Your task to perform on an android device: turn off wifi Image 0: 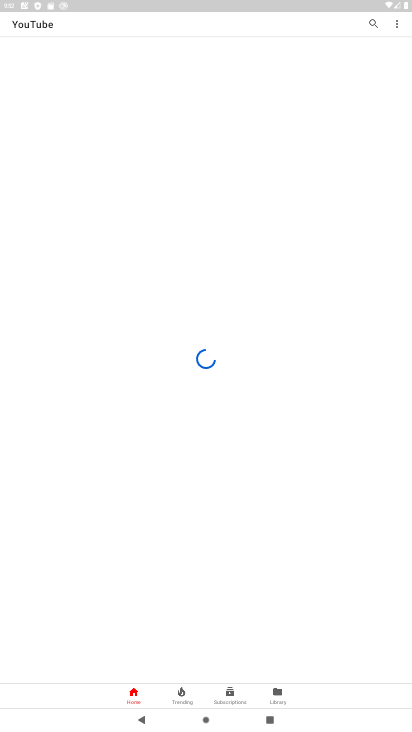
Step 0: press home button
Your task to perform on an android device: turn off wifi Image 1: 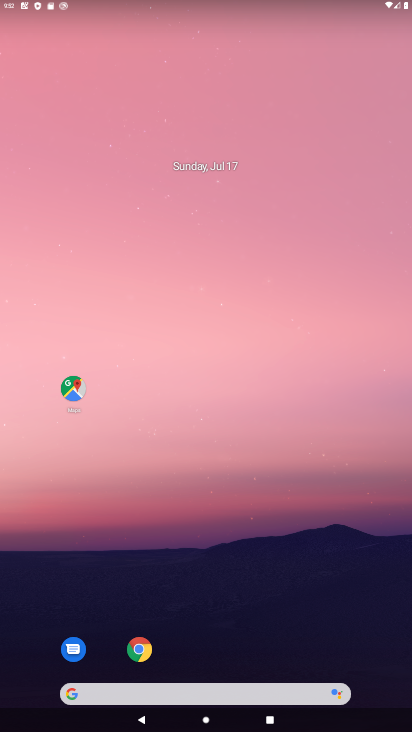
Step 1: drag from (262, 661) to (283, 137)
Your task to perform on an android device: turn off wifi Image 2: 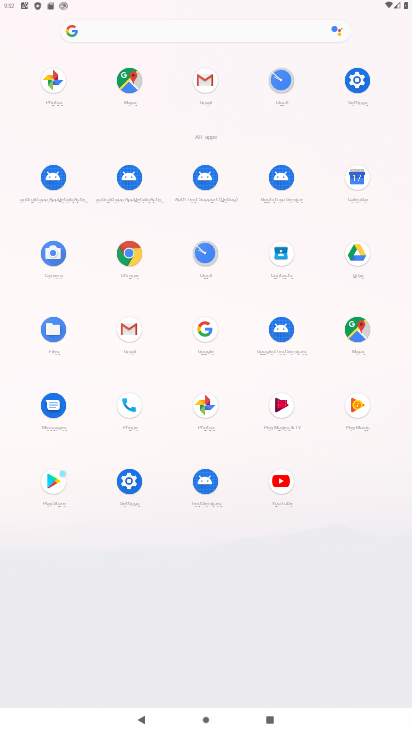
Step 2: click (132, 488)
Your task to perform on an android device: turn off wifi Image 3: 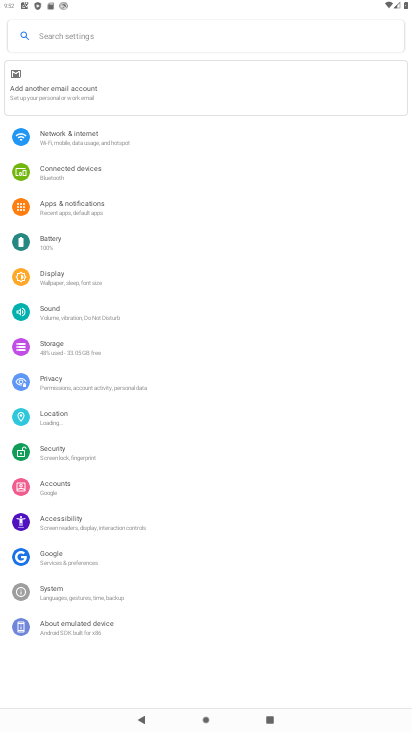
Step 3: click (119, 141)
Your task to perform on an android device: turn off wifi Image 4: 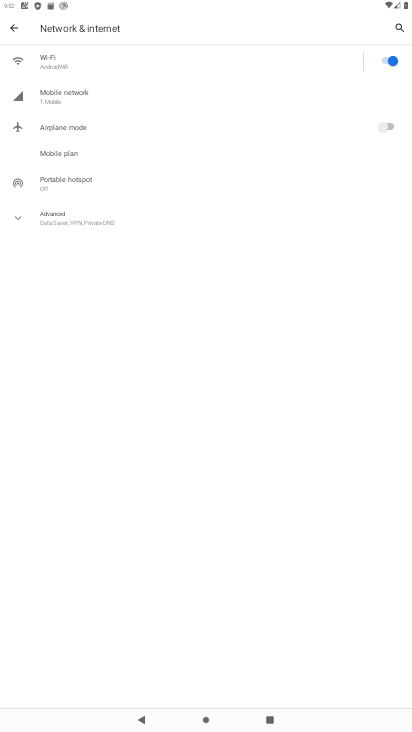
Step 4: click (382, 61)
Your task to perform on an android device: turn off wifi Image 5: 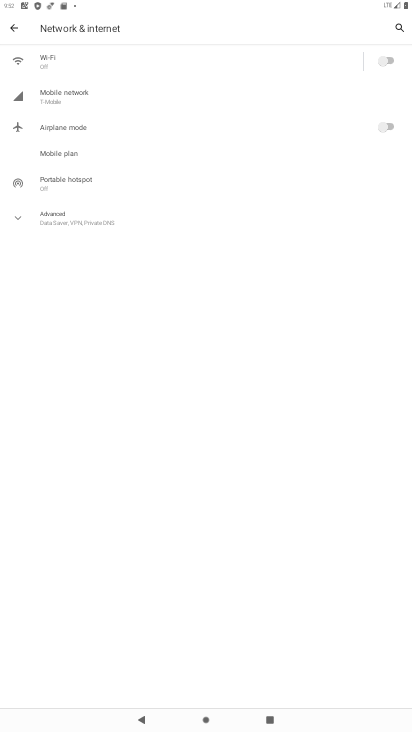
Step 5: task complete